Your task to perform on an android device: See recent photos Image 0: 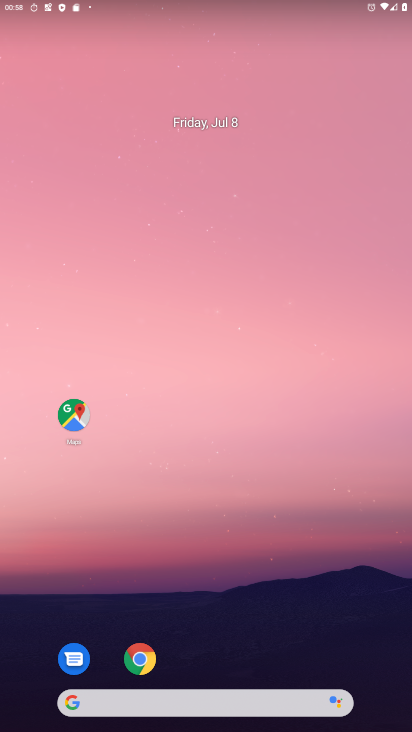
Step 0: drag from (179, 663) to (188, 23)
Your task to perform on an android device: See recent photos Image 1: 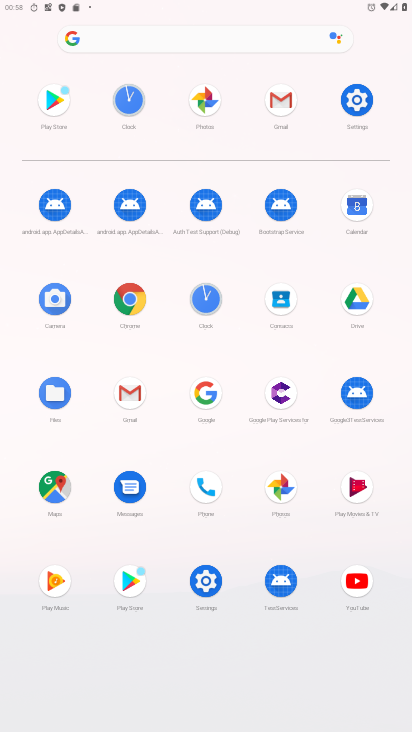
Step 1: click (203, 85)
Your task to perform on an android device: See recent photos Image 2: 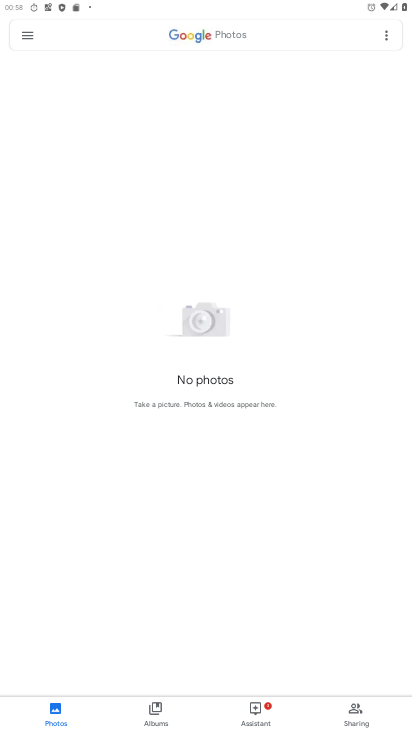
Step 2: task complete